Your task to perform on an android device: Open network settings Image 0: 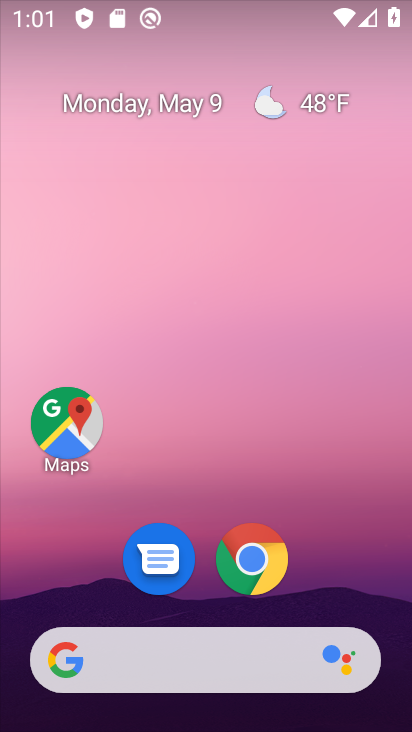
Step 0: drag from (218, 616) to (240, 193)
Your task to perform on an android device: Open network settings Image 1: 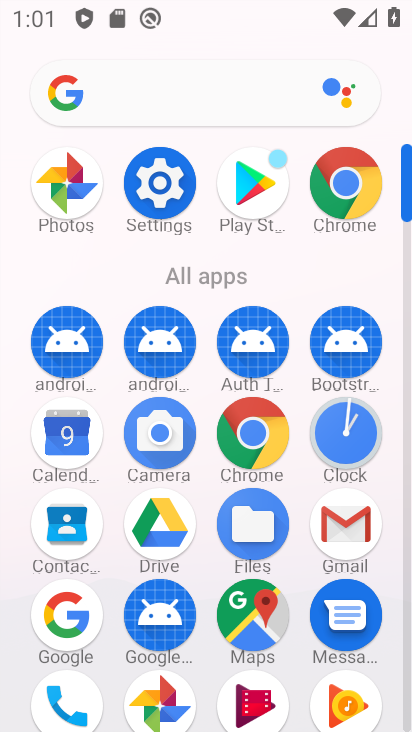
Step 1: click (166, 166)
Your task to perform on an android device: Open network settings Image 2: 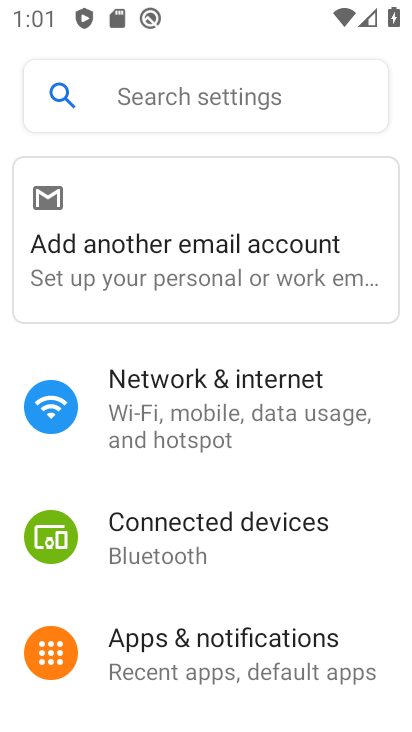
Step 2: drag from (189, 575) to (188, 158)
Your task to perform on an android device: Open network settings Image 3: 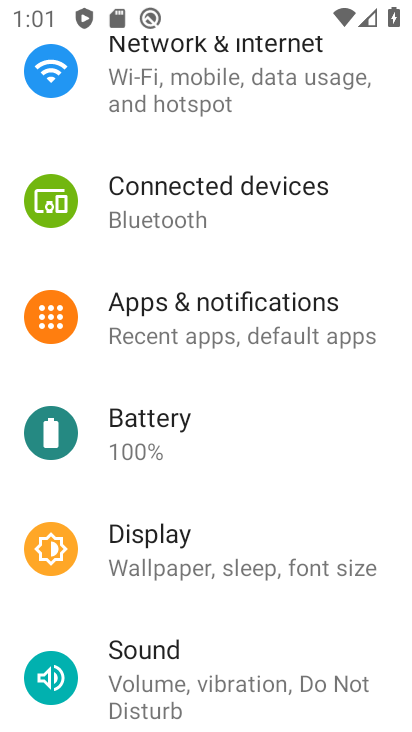
Step 3: drag from (200, 585) to (252, 299)
Your task to perform on an android device: Open network settings Image 4: 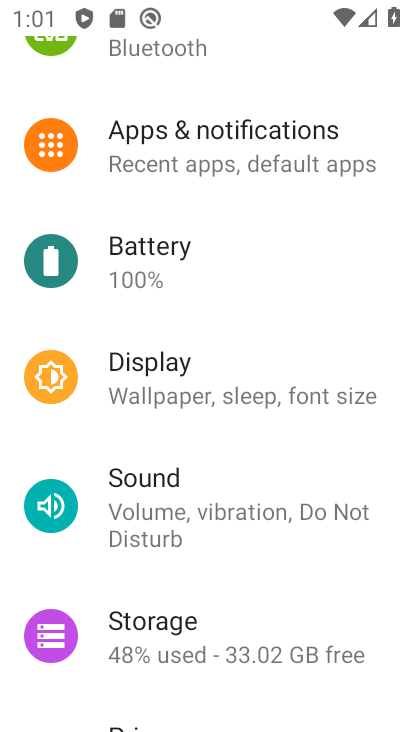
Step 4: drag from (210, 597) to (262, 378)
Your task to perform on an android device: Open network settings Image 5: 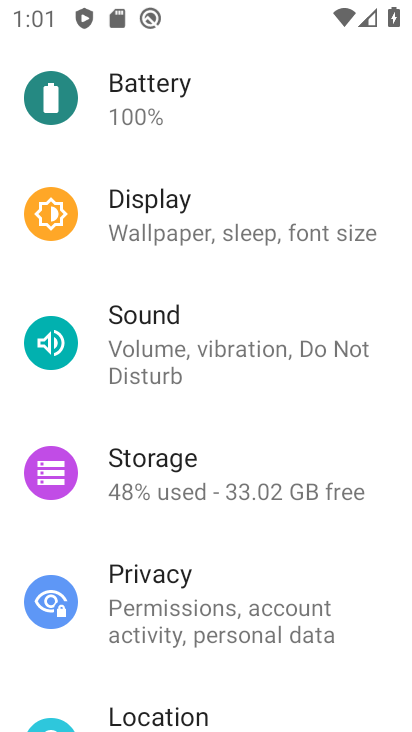
Step 5: drag from (185, 137) to (294, 617)
Your task to perform on an android device: Open network settings Image 6: 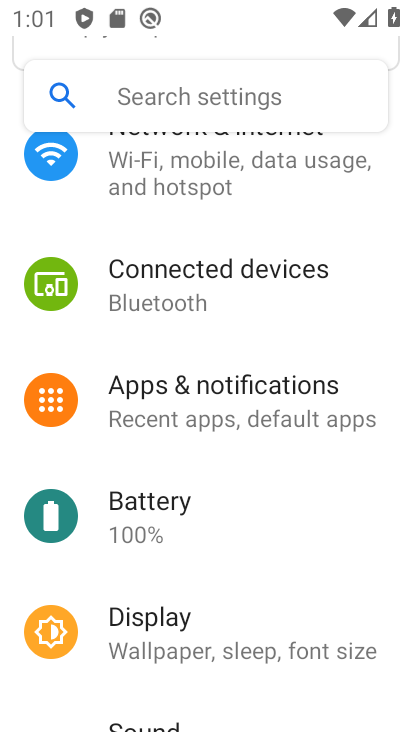
Step 6: drag from (168, 182) to (211, 545)
Your task to perform on an android device: Open network settings Image 7: 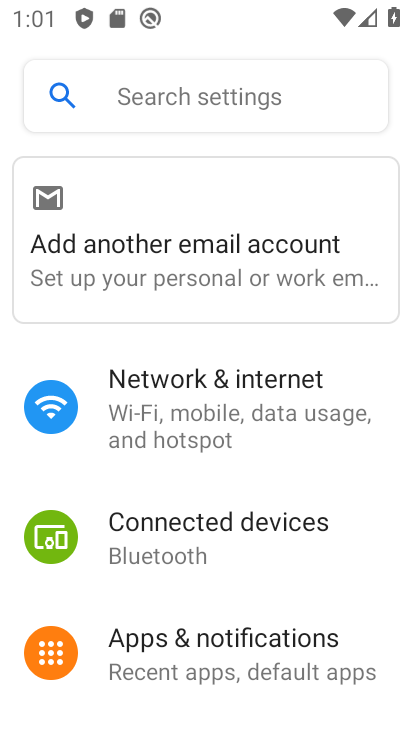
Step 7: click (221, 398)
Your task to perform on an android device: Open network settings Image 8: 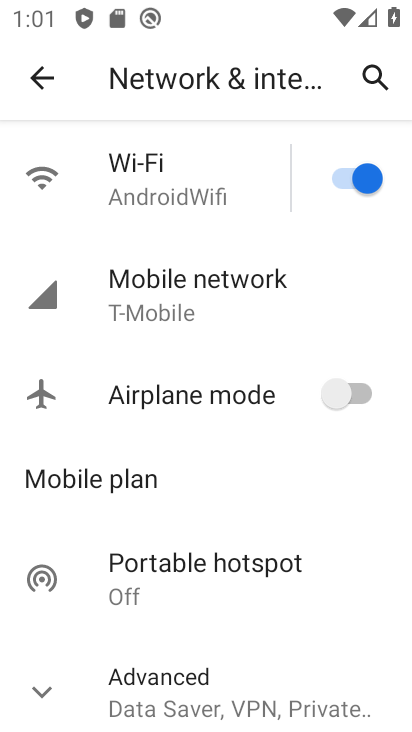
Step 8: click (238, 305)
Your task to perform on an android device: Open network settings Image 9: 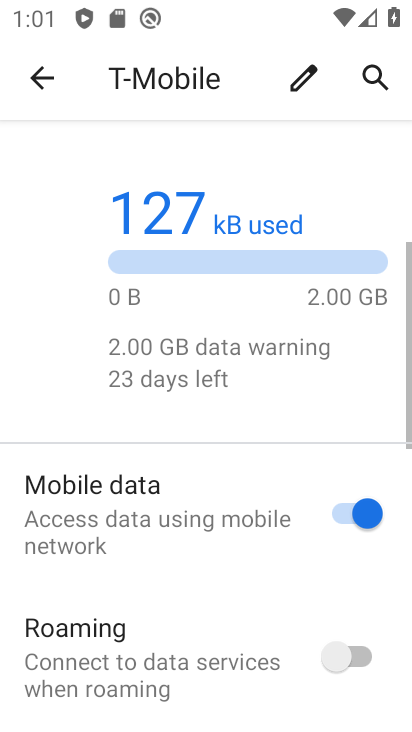
Step 9: drag from (222, 635) to (290, 168)
Your task to perform on an android device: Open network settings Image 10: 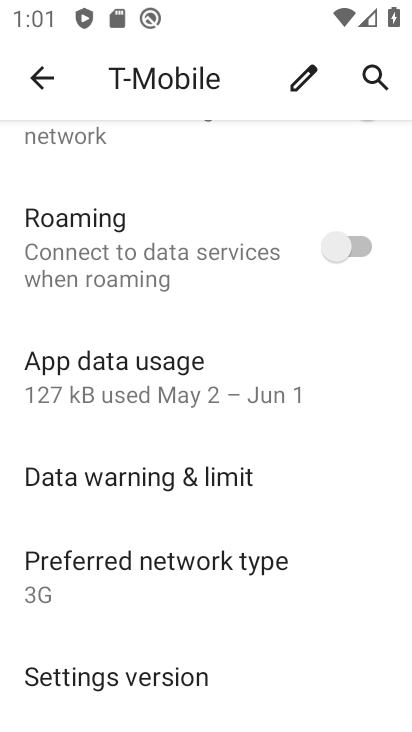
Step 10: drag from (209, 664) to (225, 321)
Your task to perform on an android device: Open network settings Image 11: 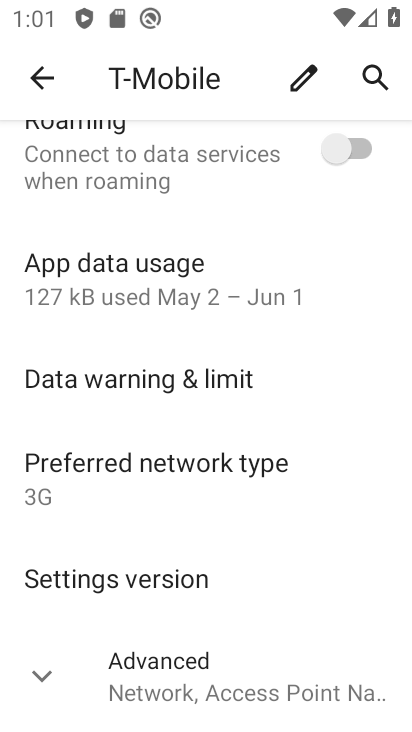
Step 11: click (171, 666)
Your task to perform on an android device: Open network settings Image 12: 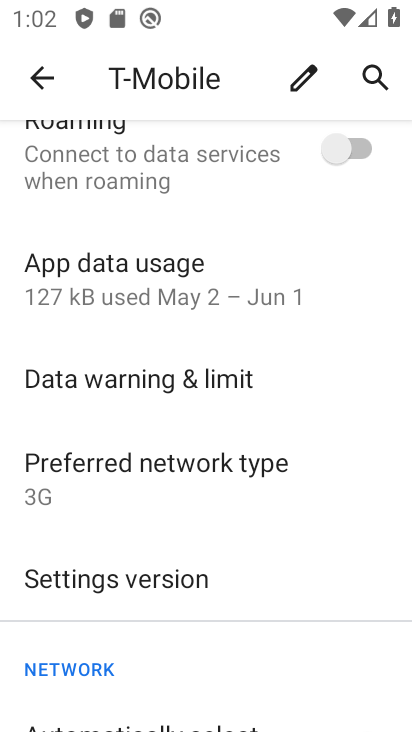
Step 12: task complete